Your task to perform on an android device: turn on the 24-hour format for clock Image 0: 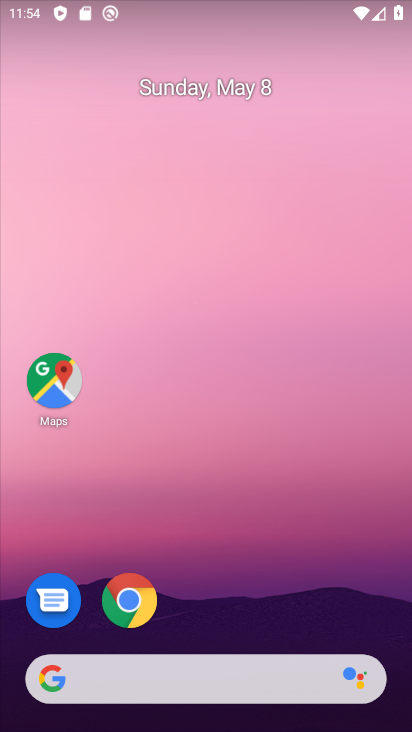
Step 0: drag from (263, 636) to (215, 199)
Your task to perform on an android device: turn on the 24-hour format for clock Image 1: 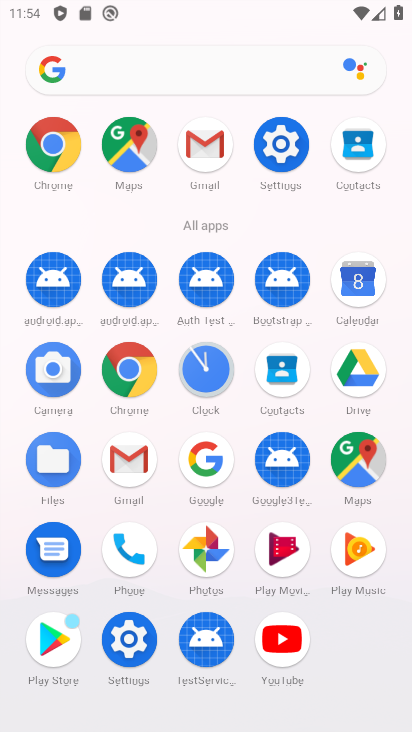
Step 1: click (213, 387)
Your task to perform on an android device: turn on the 24-hour format for clock Image 2: 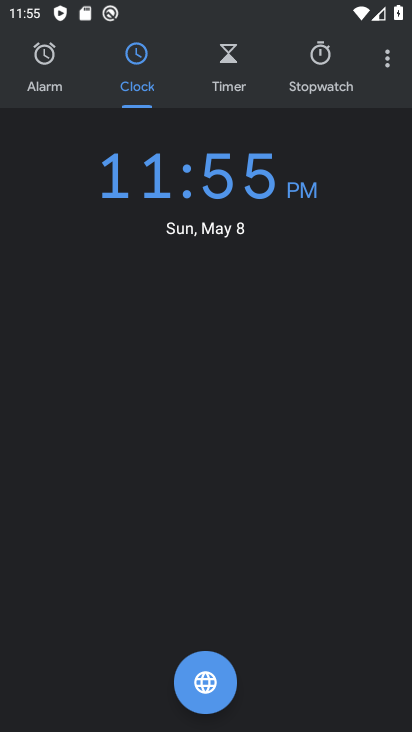
Step 2: click (395, 68)
Your task to perform on an android device: turn on the 24-hour format for clock Image 3: 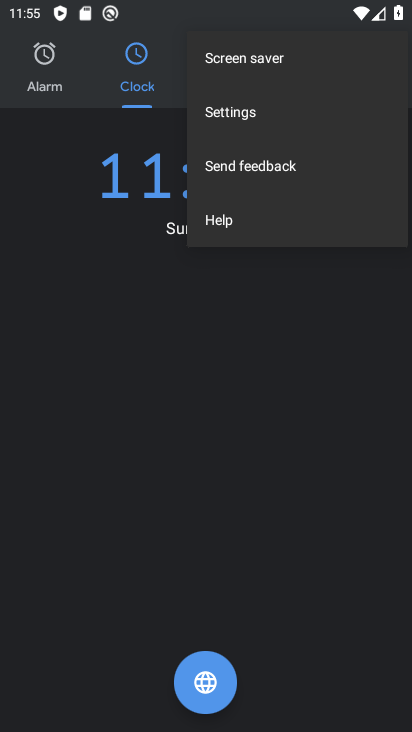
Step 3: click (365, 108)
Your task to perform on an android device: turn on the 24-hour format for clock Image 4: 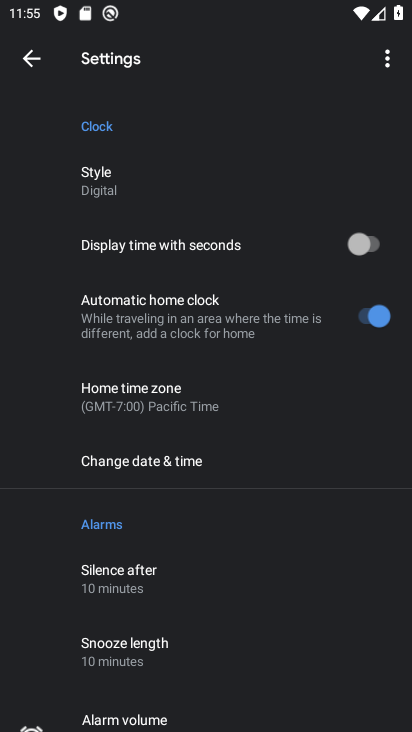
Step 4: click (266, 454)
Your task to perform on an android device: turn on the 24-hour format for clock Image 5: 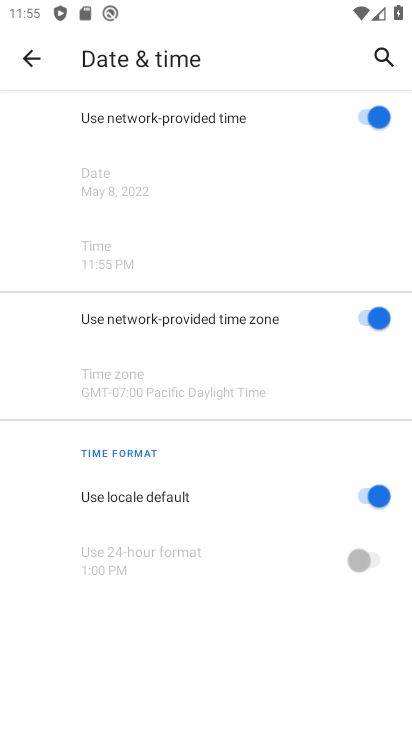
Step 5: click (364, 506)
Your task to perform on an android device: turn on the 24-hour format for clock Image 6: 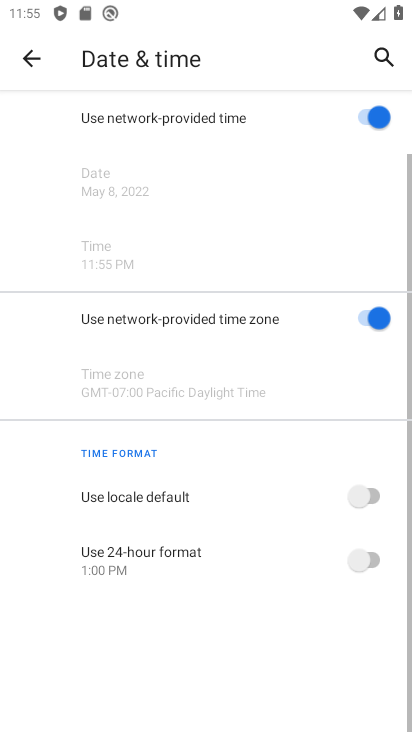
Step 6: click (371, 549)
Your task to perform on an android device: turn on the 24-hour format for clock Image 7: 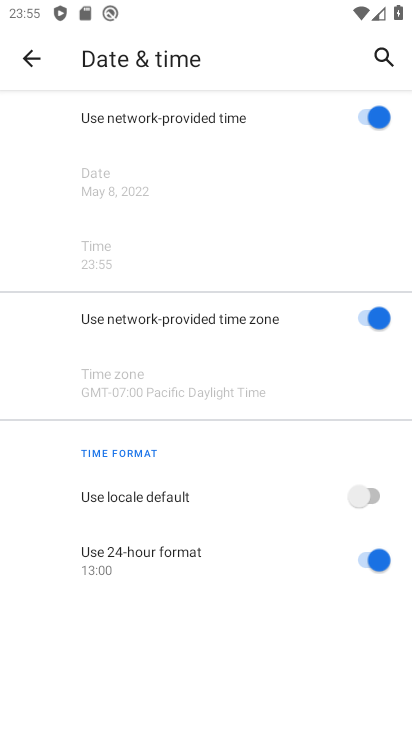
Step 7: task complete